Your task to perform on an android device: Do I have any events today? Image 0: 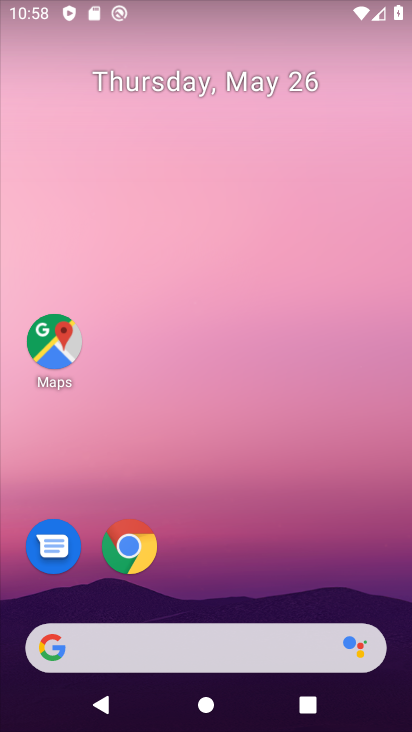
Step 0: drag from (224, 570) to (272, 91)
Your task to perform on an android device: Do I have any events today? Image 1: 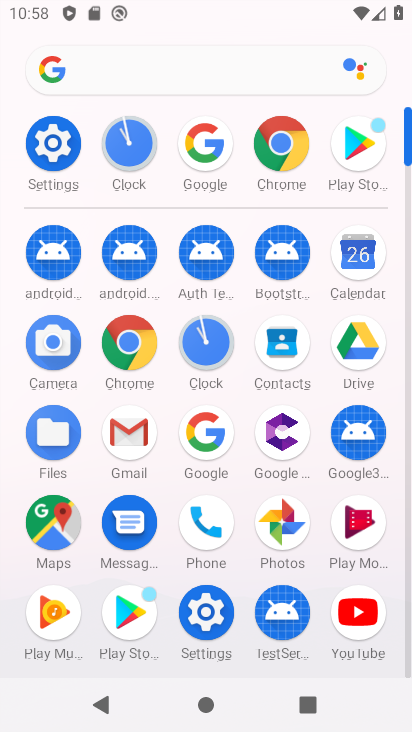
Step 1: click (363, 248)
Your task to perform on an android device: Do I have any events today? Image 2: 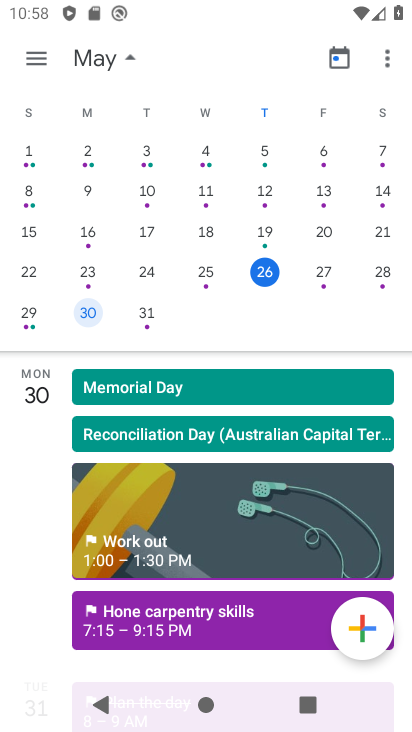
Step 2: click (267, 271)
Your task to perform on an android device: Do I have any events today? Image 3: 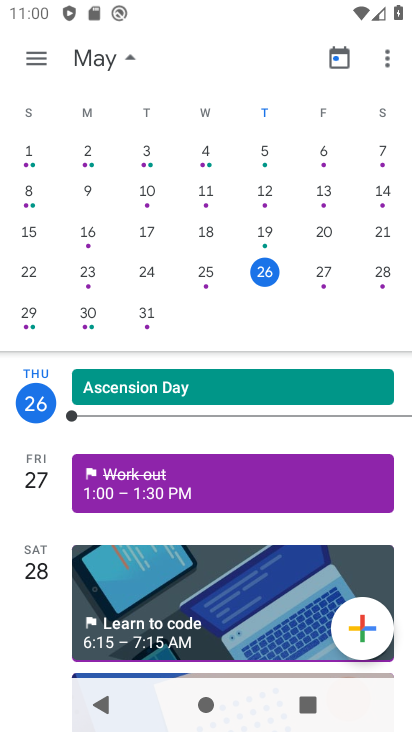
Step 3: task complete